Your task to perform on an android device: Open the stopwatch Image 0: 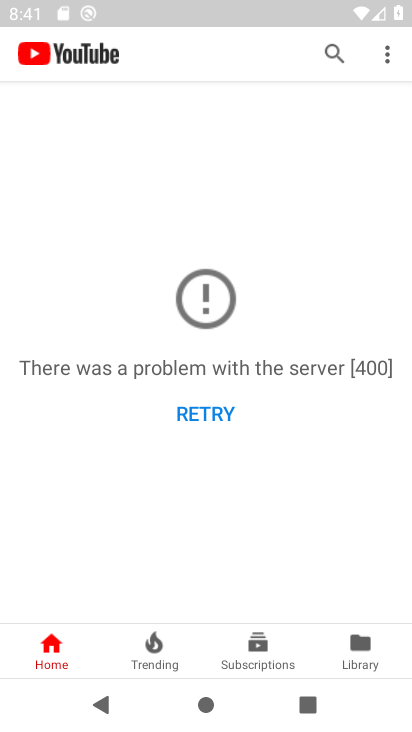
Step 0: press home button
Your task to perform on an android device: Open the stopwatch Image 1: 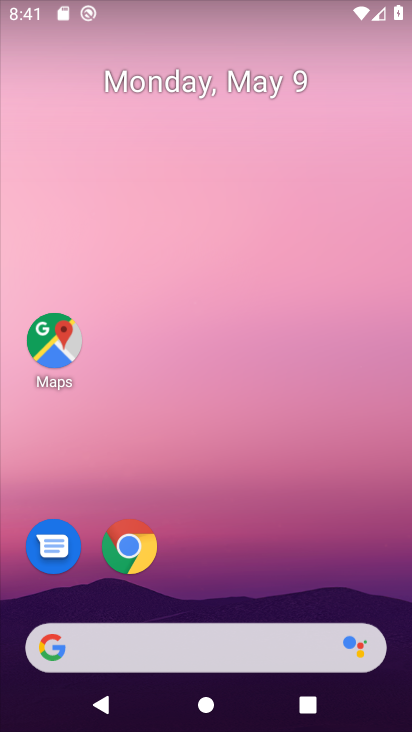
Step 1: drag from (242, 546) to (251, 139)
Your task to perform on an android device: Open the stopwatch Image 2: 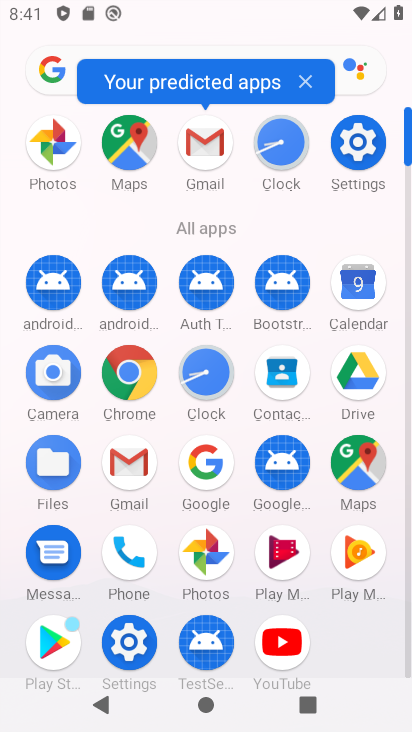
Step 2: click (218, 363)
Your task to perform on an android device: Open the stopwatch Image 3: 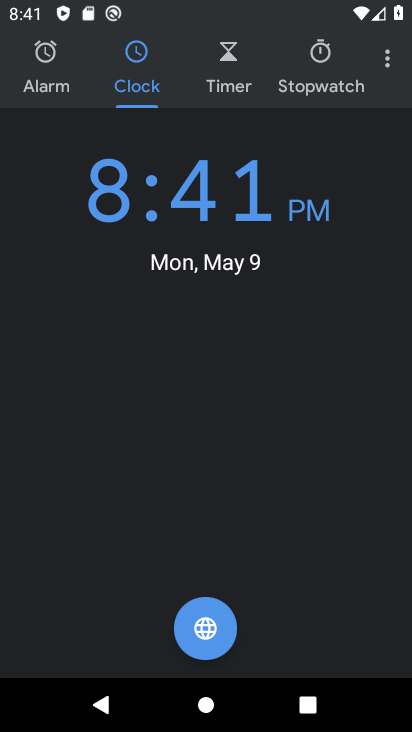
Step 3: click (318, 54)
Your task to perform on an android device: Open the stopwatch Image 4: 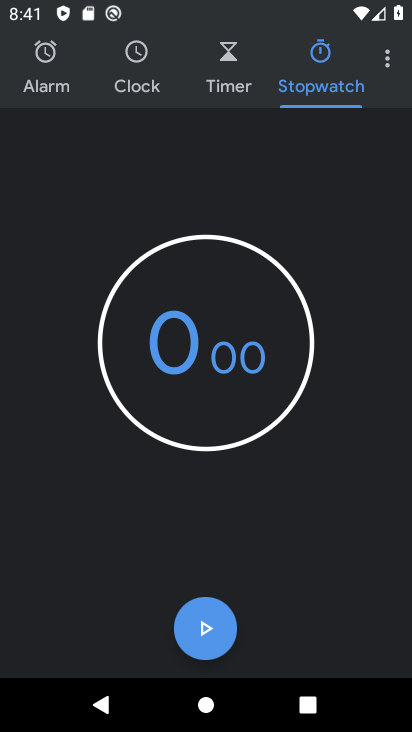
Step 4: click (203, 622)
Your task to perform on an android device: Open the stopwatch Image 5: 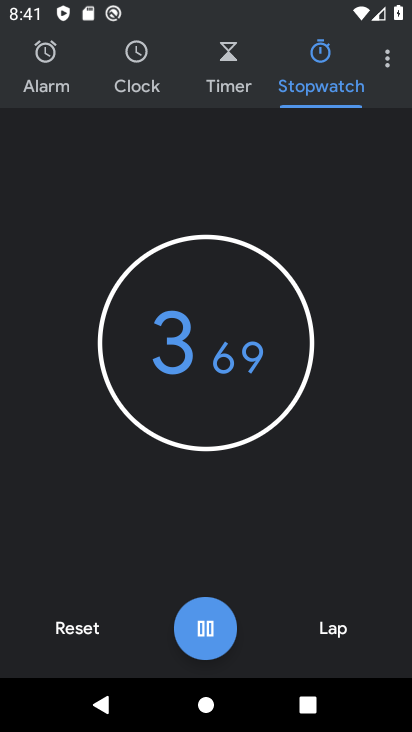
Step 5: task complete